Your task to perform on an android device: Search for vegetarian restaurants on Maps Image 0: 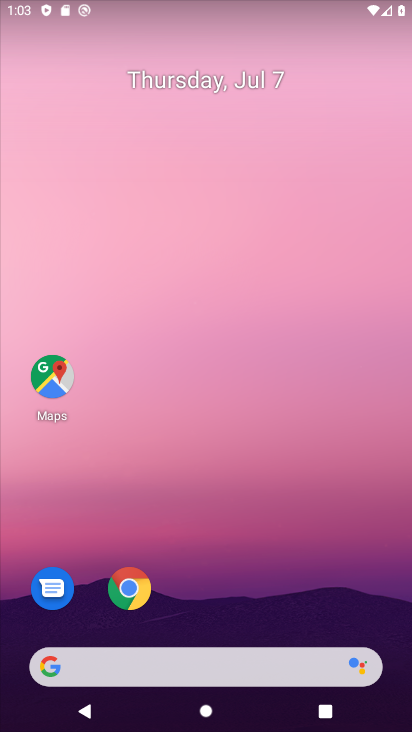
Step 0: drag from (269, 593) to (255, 375)
Your task to perform on an android device: Search for vegetarian restaurants on Maps Image 1: 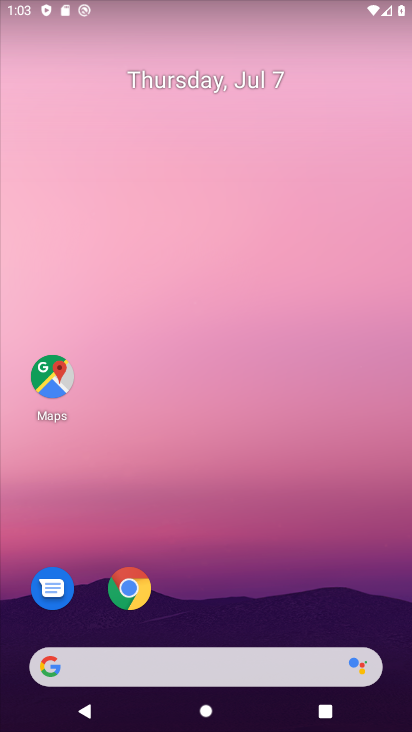
Step 1: drag from (259, 600) to (243, 473)
Your task to perform on an android device: Search for vegetarian restaurants on Maps Image 2: 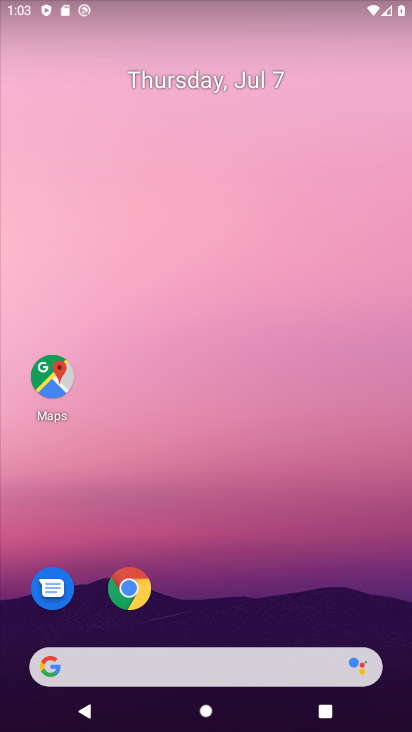
Step 2: drag from (268, 595) to (245, 50)
Your task to perform on an android device: Search for vegetarian restaurants on Maps Image 3: 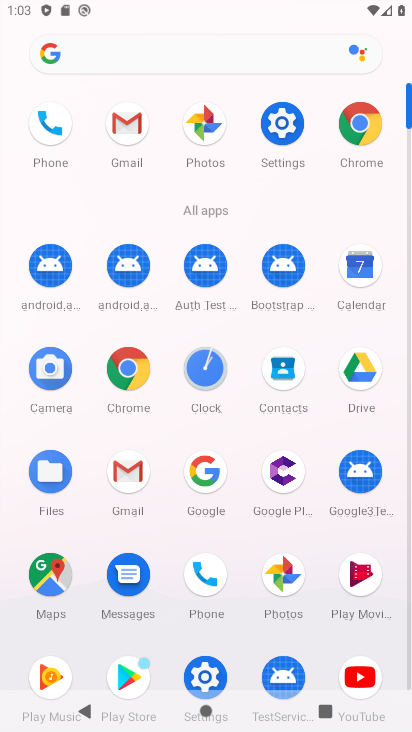
Step 3: click (48, 564)
Your task to perform on an android device: Search for vegetarian restaurants on Maps Image 4: 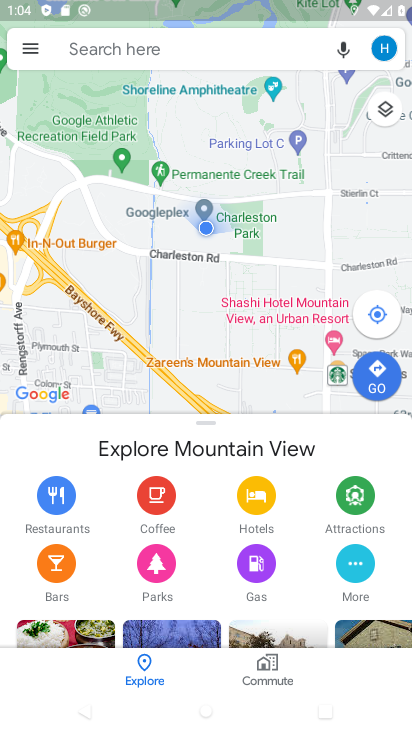
Step 4: click (179, 45)
Your task to perform on an android device: Search for vegetarian restaurants on Maps Image 5: 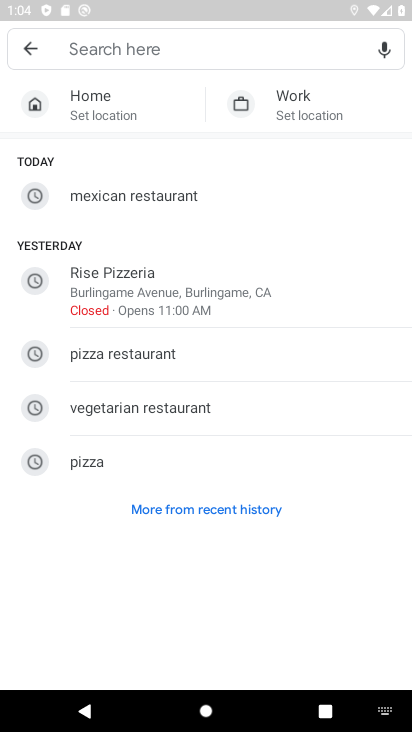
Step 5: type " vegetarian restaurant "
Your task to perform on an android device: Search for vegetarian restaurants on Maps Image 6: 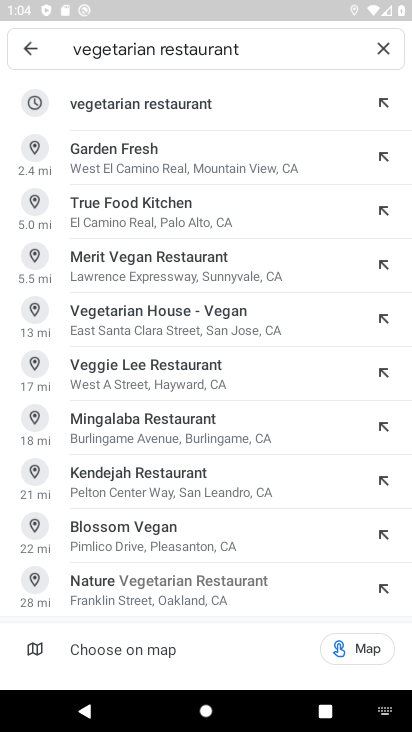
Step 6: click (179, 98)
Your task to perform on an android device: Search for vegetarian restaurants on Maps Image 7: 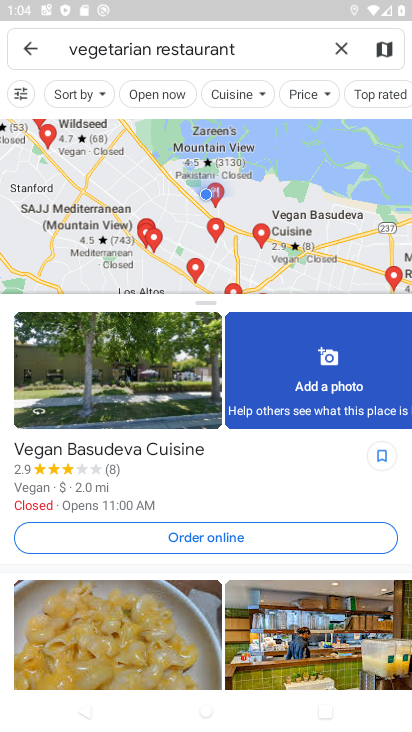
Step 7: task complete